Your task to perform on an android device: open app "TextNow: Call + Text Unlimited" (install if not already installed) and enter user name: "stoke@yahoo.com" and password: "prompted" Image 0: 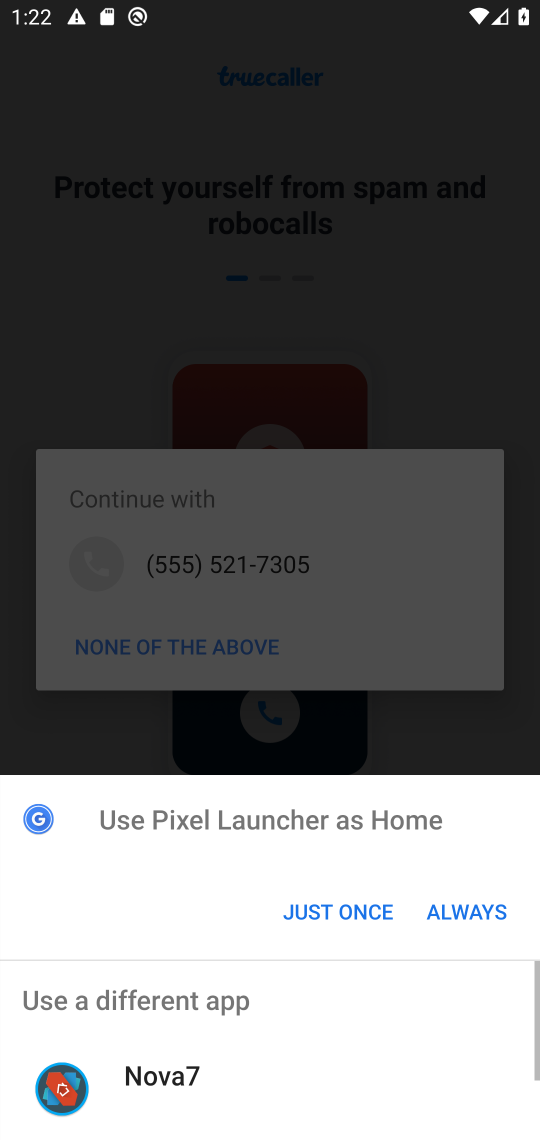
Step 0: press home button
Your task to perform on an android device: open app "TextNow: Call + Text Unlimited" (install if not already installed) and enter user name: "stoke@yahoo.com" and password: "prompted" Image 1: 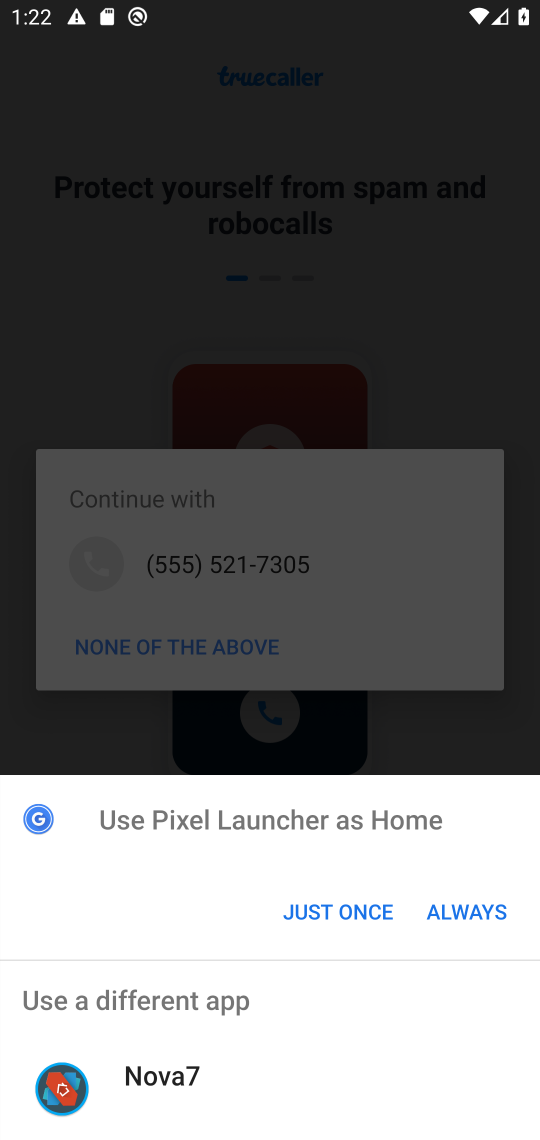
Step 1: click (358, 899)
Your task to perform on an android device: open app "TextNow: Call + Text Unlimited" (install if not already installed) and enter user name: "stoke@yahoo.com" and password: "prompted" Image 2: 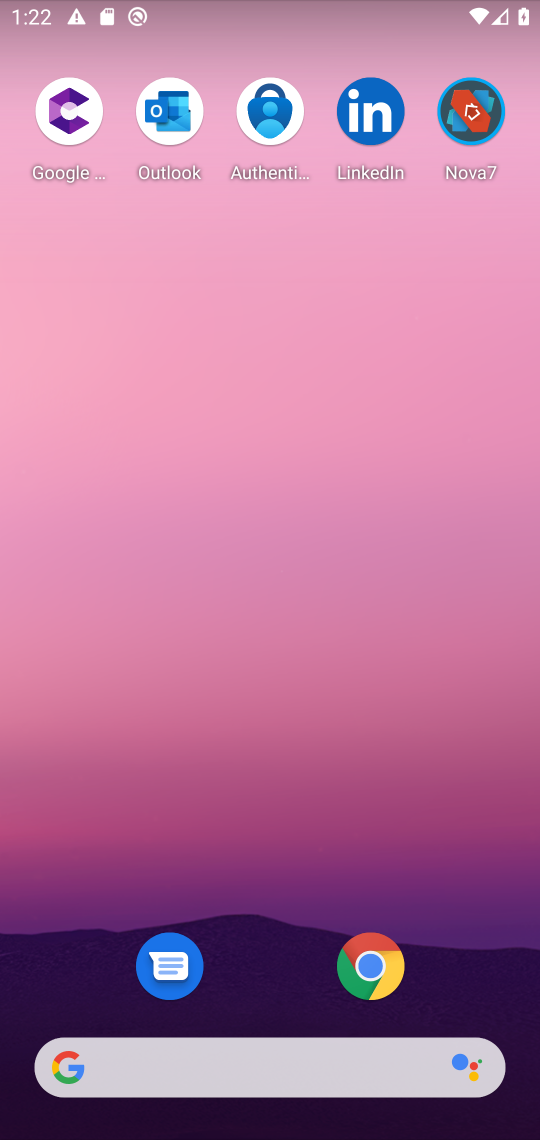
Step 2: press home button
Your task to perform on an android device: open app "TextNow: Call + Text Unlimited" (install if not already installed) and enter user name: "stoke@yahoo.com" and password: "prompted" Image 3: 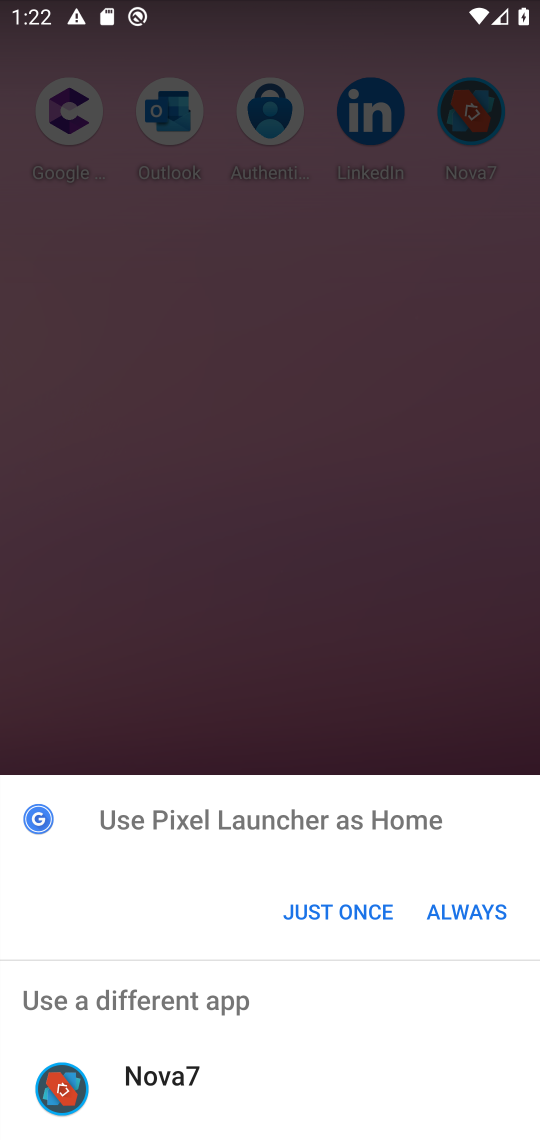
Step 3: click (347, 911)
Your task to perform on an android device: open app "TextNow: Call + Text Unlimited" (install if not already installed) and enter user name: "stoke@yahoo.com" and password: "prompted" Image 4: 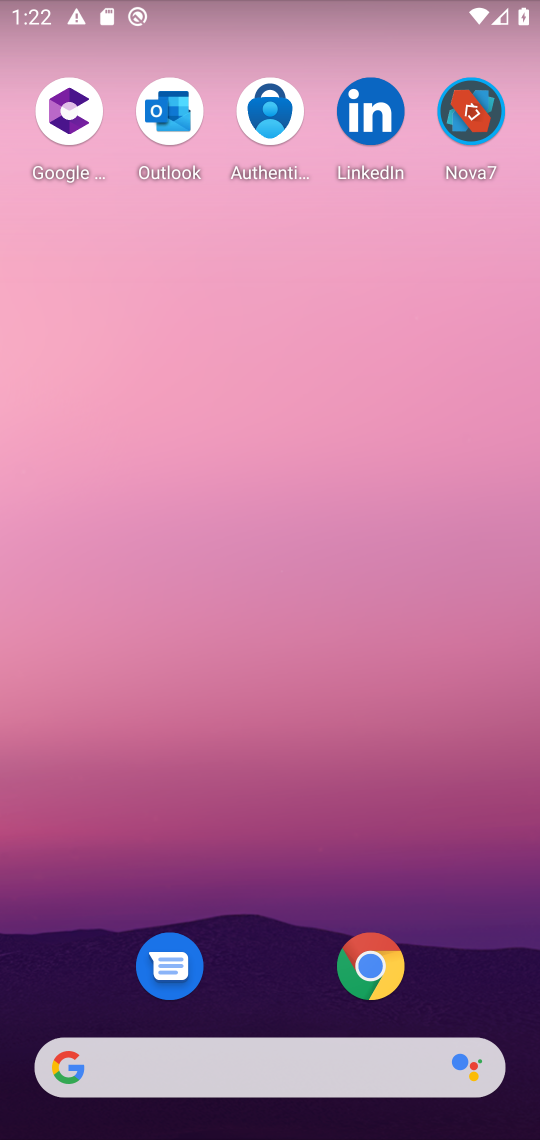
Step 4: drag from (287, 978) to (325, 144)
Your task to perform on an android device: open app "TextNow: Call + Text Unlimited" (install if not already installed) and enter user name: "stoke@yahoo.com" and password: "prompted" Image 5: 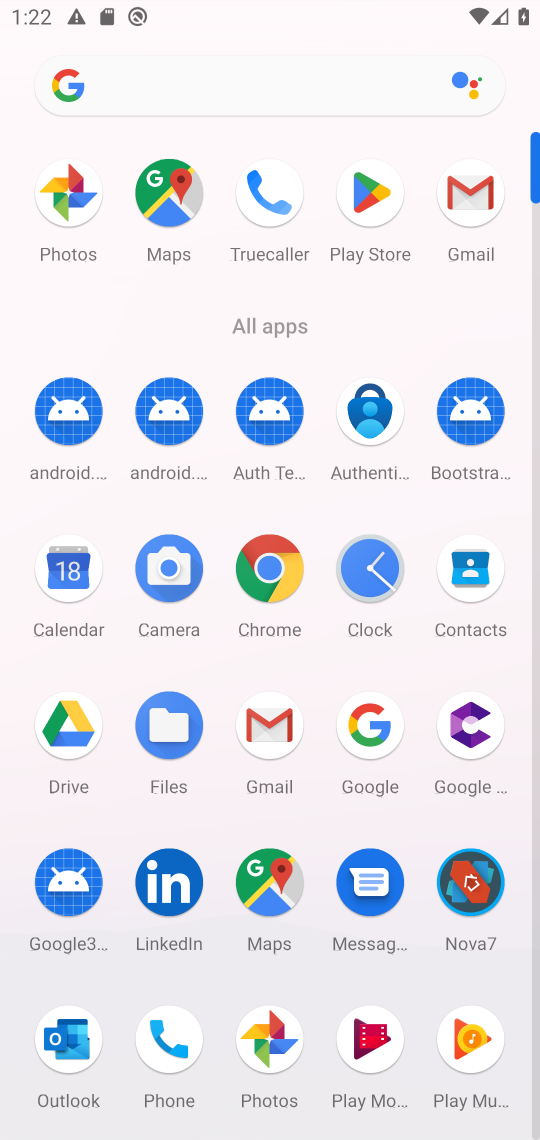
Step 5: click (358, 188)
Your task to perform on an android device: open app "TextNow: Call + Text Unlimited" (install if not already installed) and enter user name: "stoke@yahoo.com" and password: "prompted" Image 6: 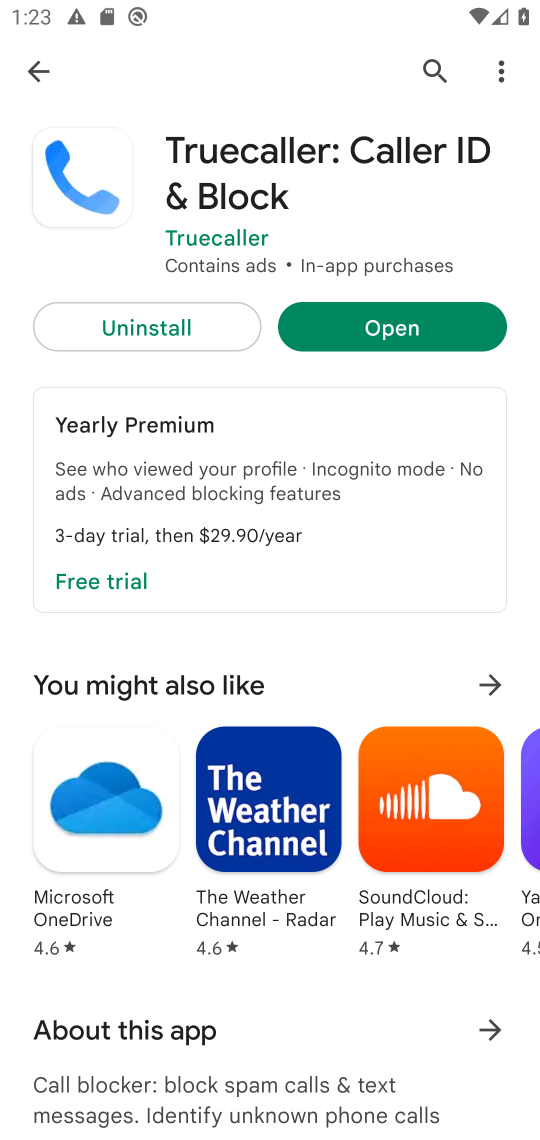
Step 6: click (428, 62)
Your task to perform on an android device: open app "TextNow: Call + Text Unlimited" (install if not already installed) and enter user name: "stoke@yahoo.com" and password: "prompted" Image 7: 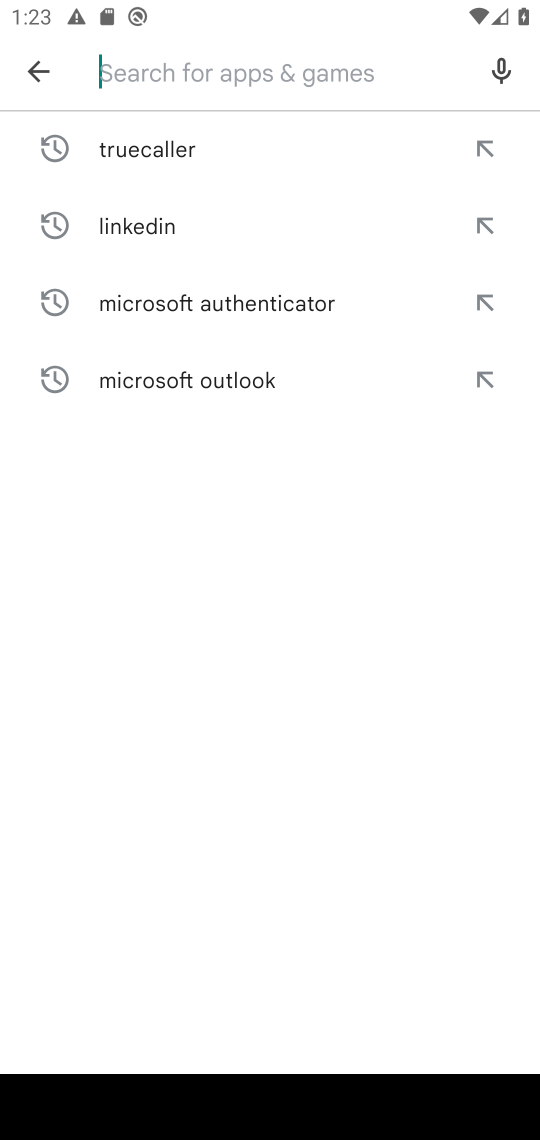
Step 7: type "TextNow: Call + Text Unlimited"
Your task to perform on an android device: open app "TextNow: Call + Text Unlimited" (install if not already installed) and enter user name: "stoke@yahoo.com" and password: "prompted" Image 8: 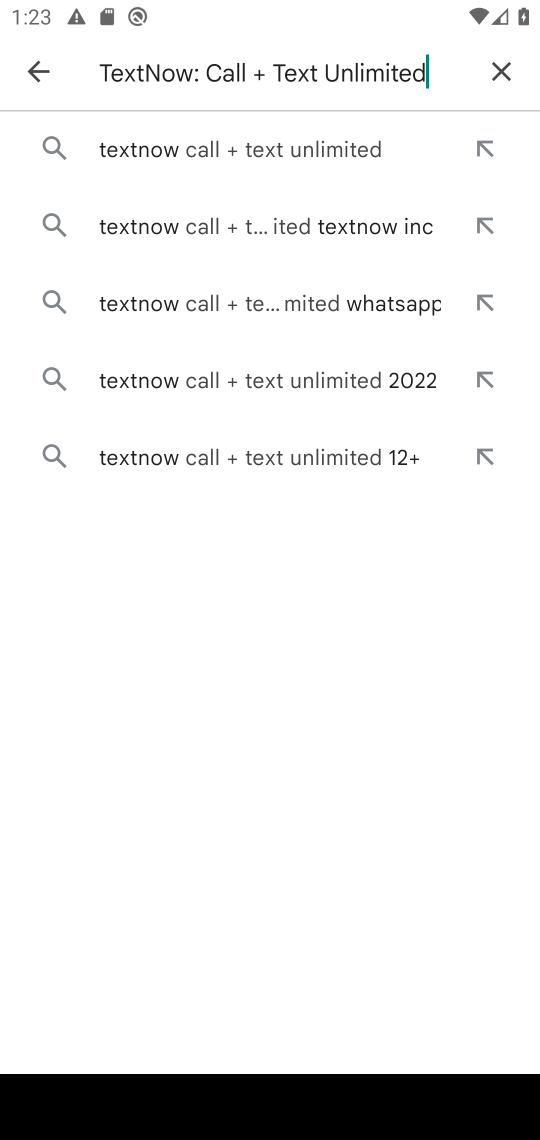
Step 8: click (224, 157)
Your task to perform on an android device: open app "TextNow: Call + Text Unlimited" (install if not already installed) and enter user name: "stoke@yahoo.com" and password: "prompted" Image 9: 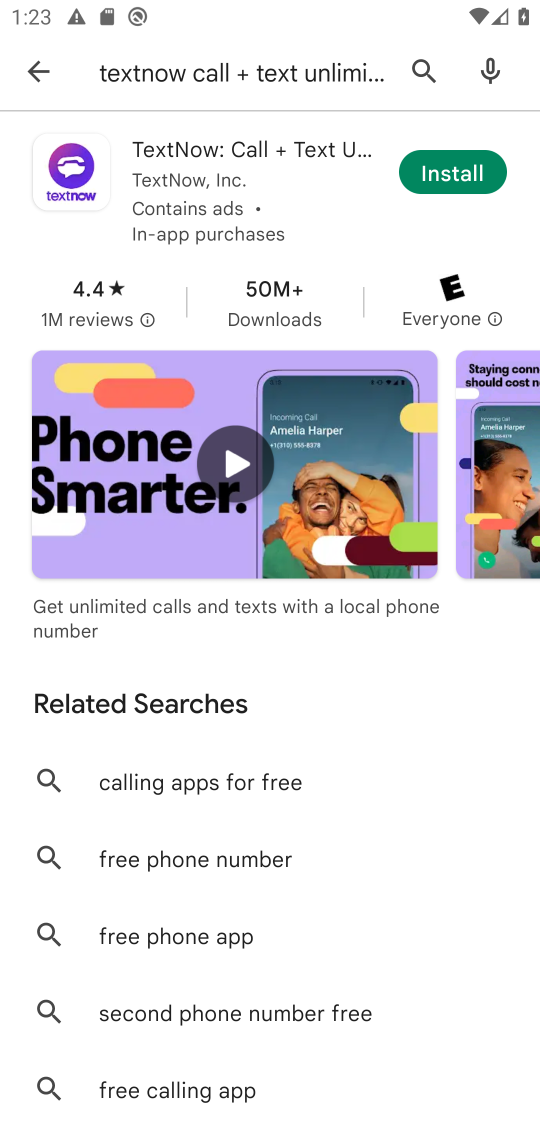
Step 9: click (470, 164)
Your task to perform on an android device: open app "TextNow: Call + Text Unlimited" (install if not already installed) and enter user name: "stoke@yahoo.com" and password: "prompted" Image 10: 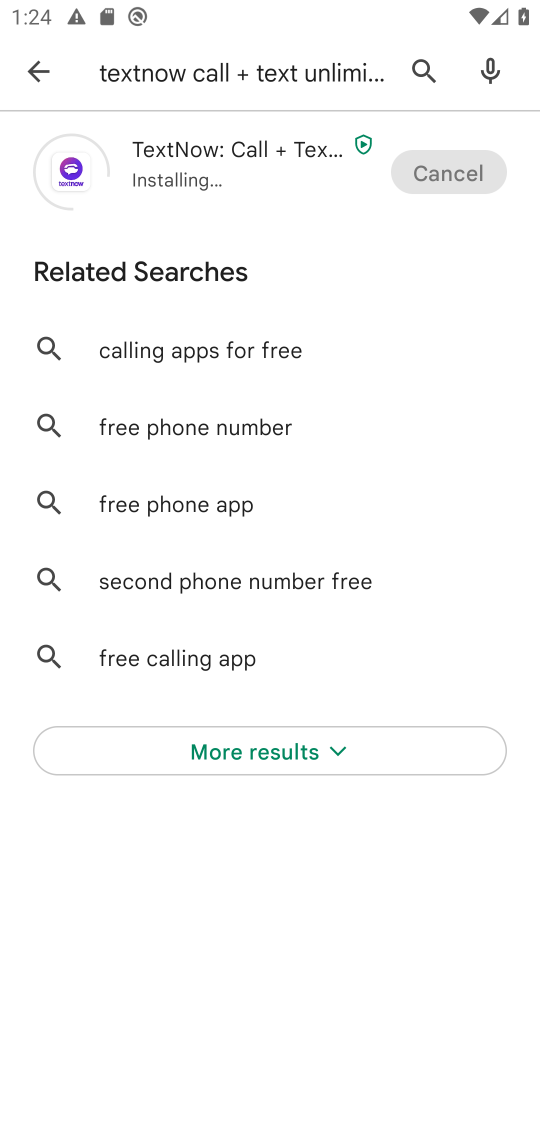
Step 10: click (274, 156)
Your task to perform on an android device: open app "TextNow: Call + Text Unlimited" (install if not already installed) and enter user name: "stoke@yahoo.com" and password: "prompted" Image 11: 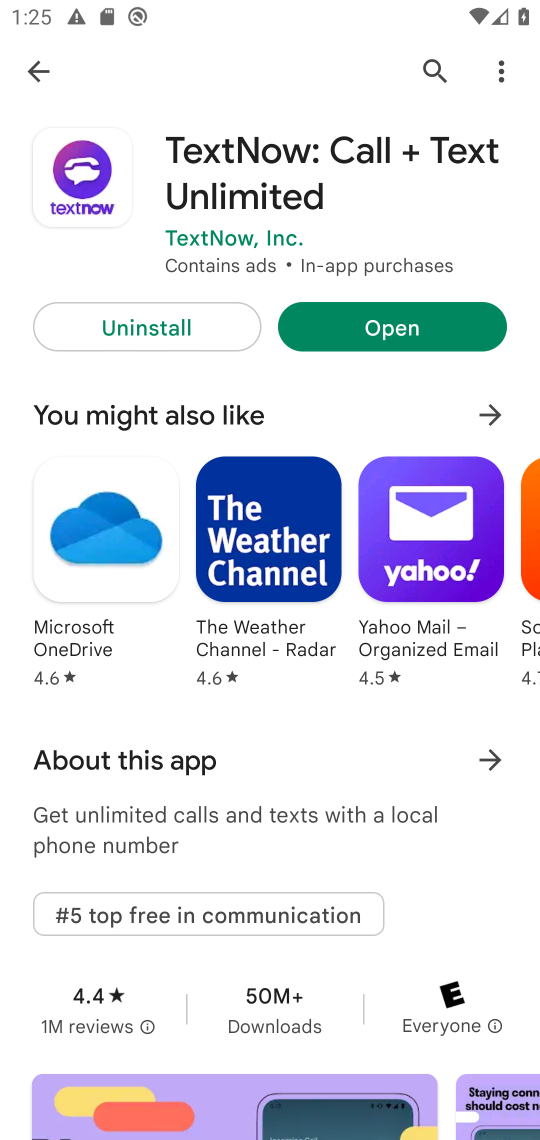
Step 11: click (384, 339)
Your task to perform on an android device: open app "TextNow: Call + Text Unlimited" (install if not already installed) and enter user name: "stoke@yahoo.com" and password: "prompted" Image 12: 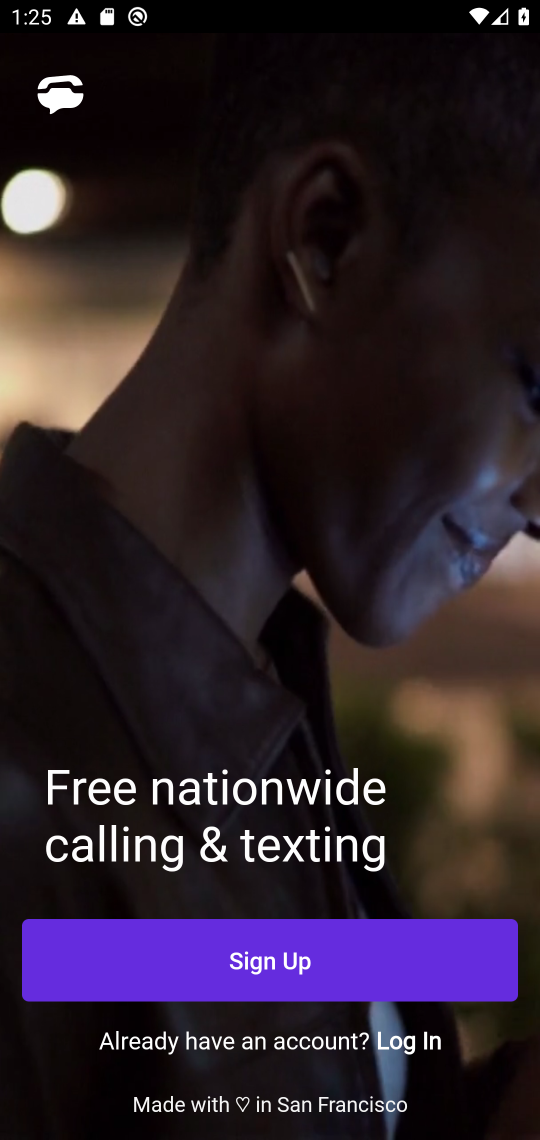
Step 12: click (292, 954)
Your task to perform on an android device: open app "TextNow: Call + Text Unlimited" (install if not already installed) and enter user name: "stoke@yahoo.com" and password: "prompted" Image 13: 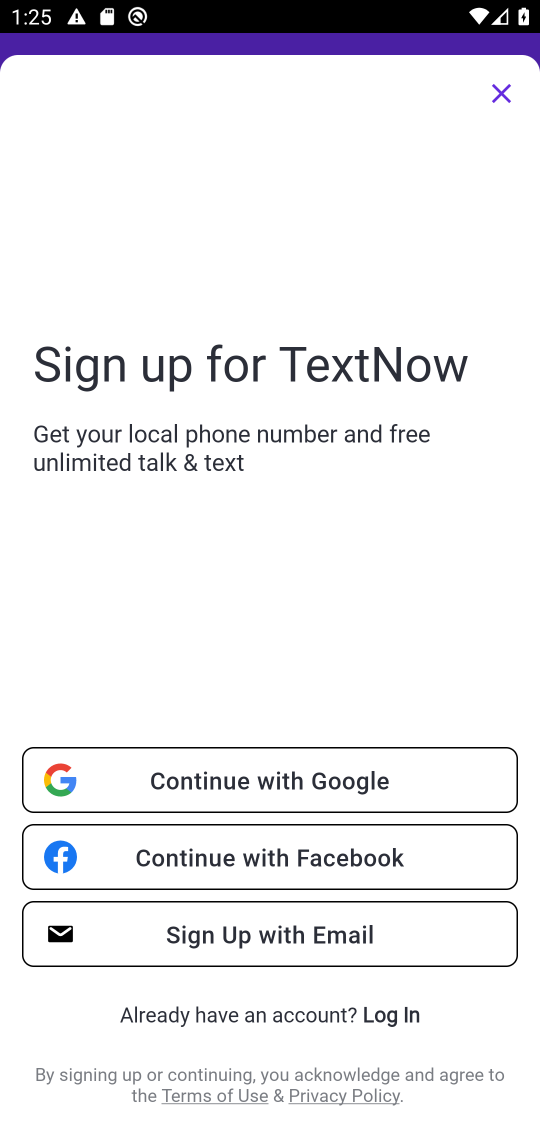
Step 13: click (276, 946)
Your task to perform on an android device: open app "TextNow: Call + Text Unlimited" (install if not already installed) and enter user name: "stoke@yahoo.com" and password: "prompted" Image 14: 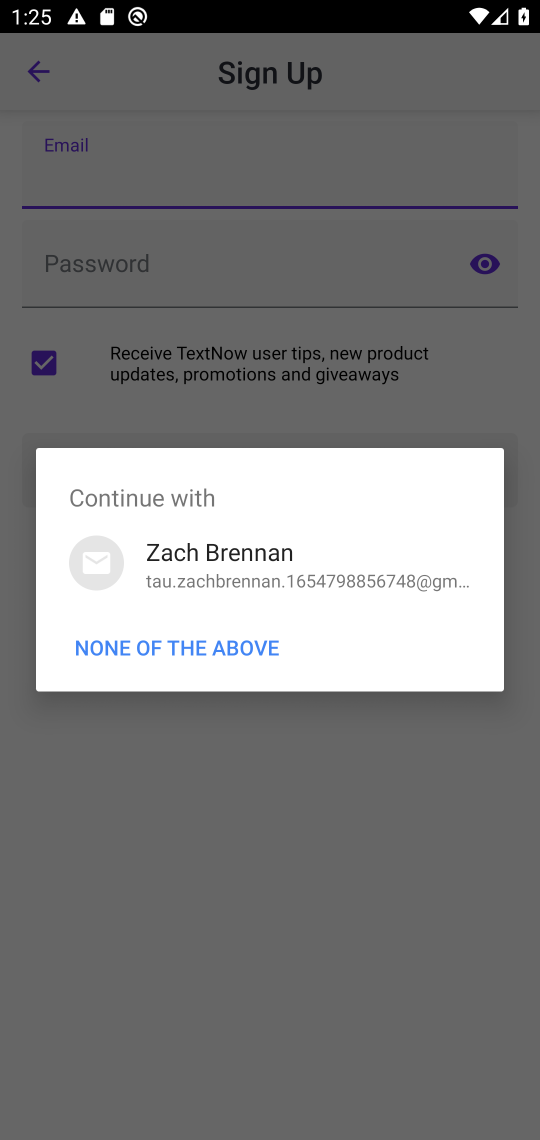
Step 14: click (160, 171)
Your task to perform on an android device: open app "TextNow: Call + Text Unlimited" (install if not already installed) and enter user name: "stoke@yahoo.com" and password: "prompted" Image 15: 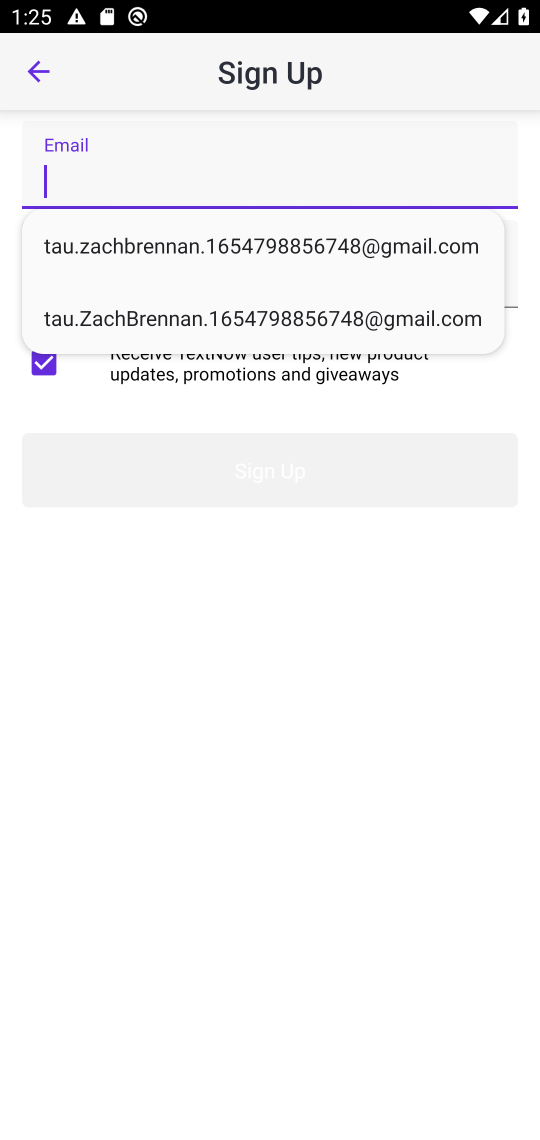
Step 15: type "stoke@yahoo.com"
Your task to perform on an android device: open app "TextNow: Call + Text Unlimited" (install if not already installed) and enter user name: "stoke@yahoo.com" and password: "prompted" Image 16: 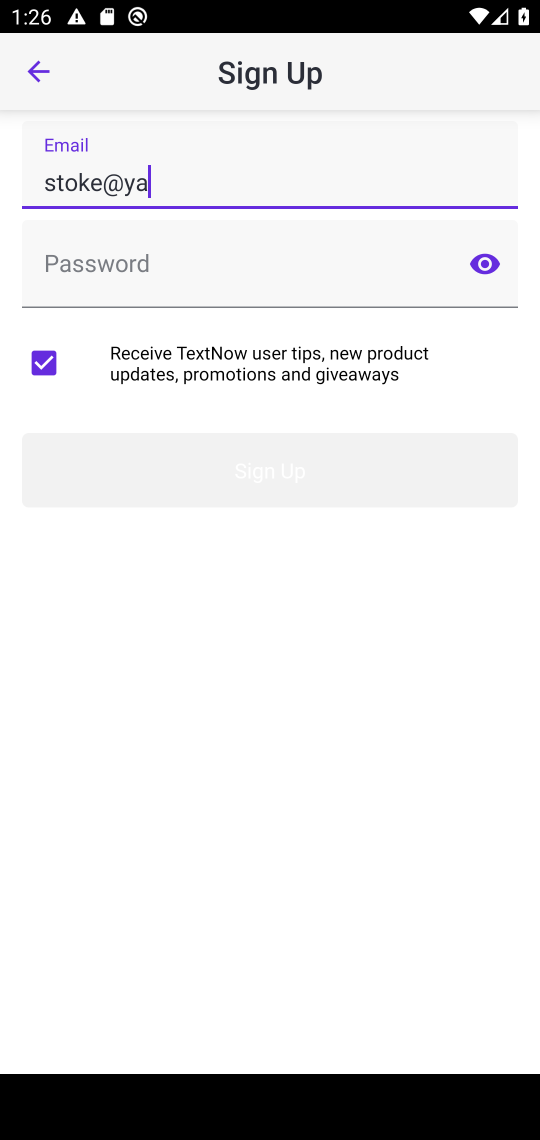
Step 16: click (117, 272)
Your task to perform on an android device: open app "TextNow: Call + Text Unlimited" (install if not already installed) and enter user name: "stoke@yahoo.com" and password: "prompted" Image 17: 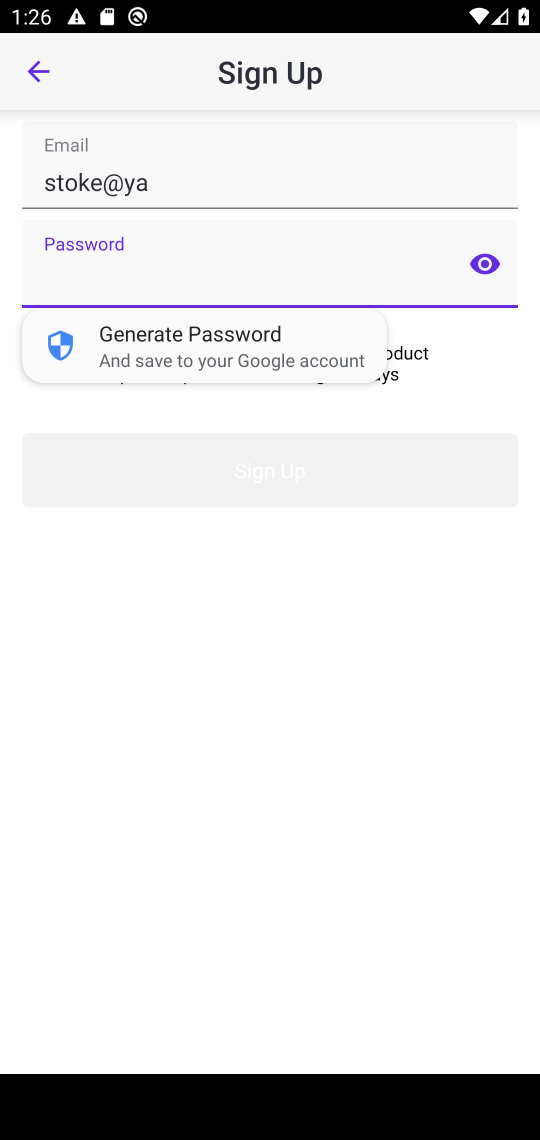
Step 17: click (122, 277)
Your task to perform on an android device: open app "TextNow: Call + Text Unlimited" (install if not already installed) and enter user name: "stoke@yahoo.com" and password: "prompted" Image 18: 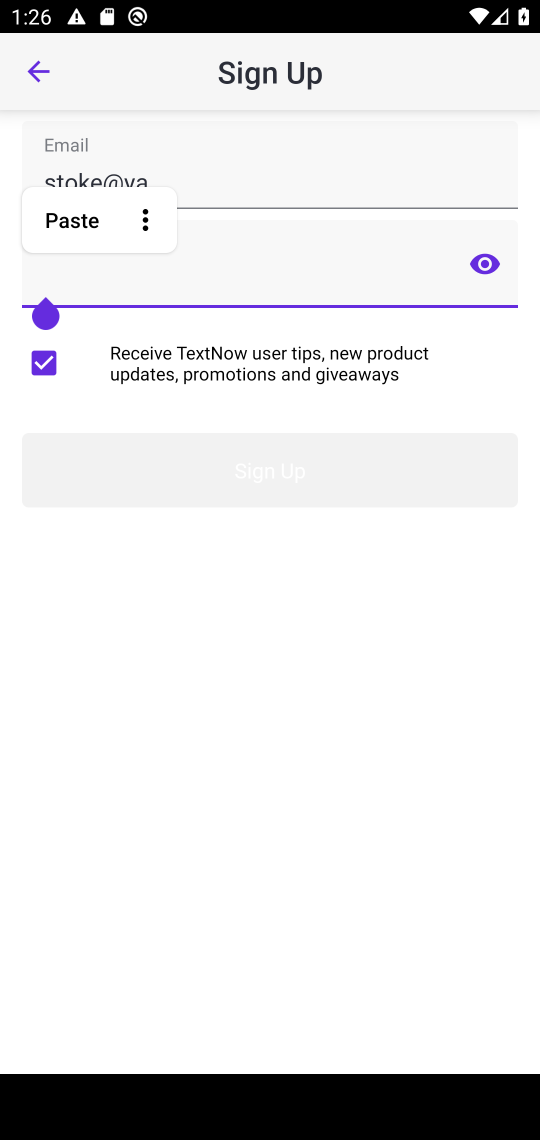
Step 18: type "prompted"
Your task to perform on an android device: open app "TextNow: Call + Text Unlimited" (install if not already installed) and enter user name: "stoke@yahoo.com" and password: "prompted" Image 19: 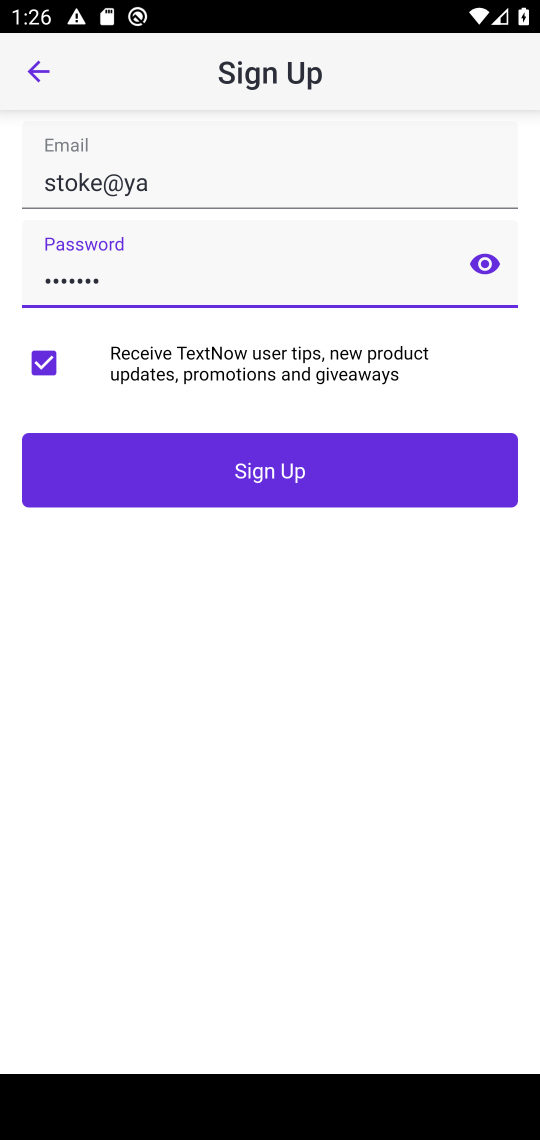
Step 19: click (247, 462)
Your task to perform on an android device: open app "TextNow: Call + Text Unlimited" (install if not already installed) and enter user name: "stoke@yahoo.com" and password: "prompted" Image 20: 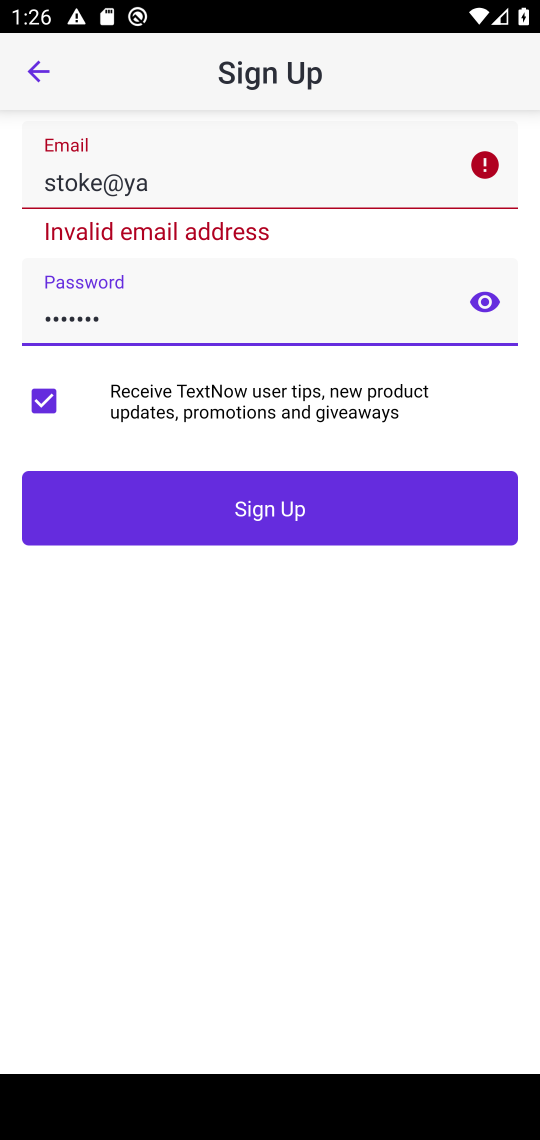
Step 20: click (190, 169)
Your task to perform on an android device: open app "TextNow: Call + Text Unlimited" (install if not already installed) and enter user name: "stoke@yahoo.com" and password: "prompted" Image 21: 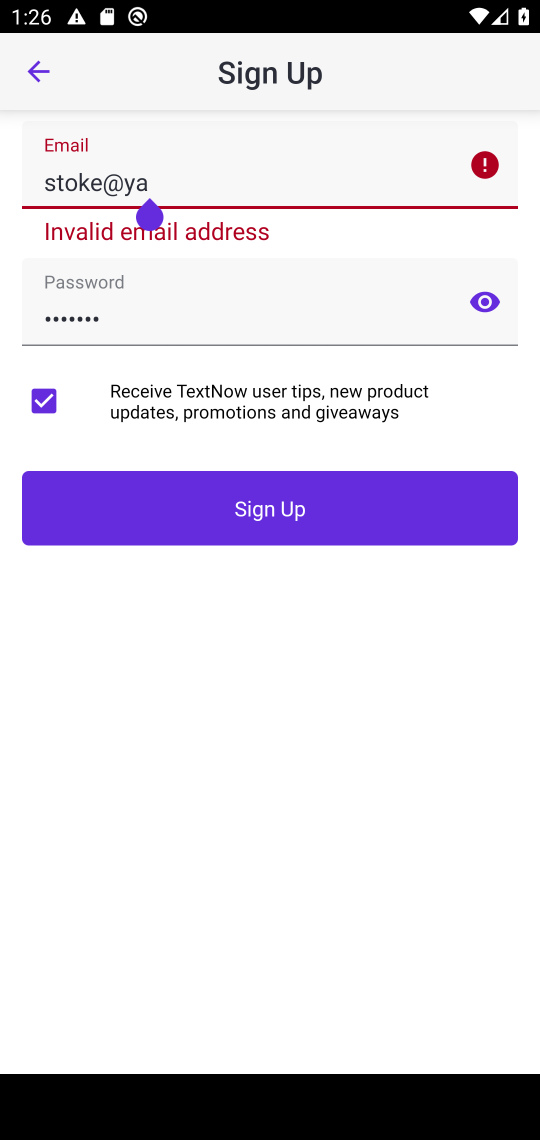
Step 21: drag from (146, 211) to (28, 216)
Your task to perform on an android device: open app "TextNow: Call + Text Unlimited" (install if not already installed) and enter user name: "stoke@yahoo.com" and password: "prompted" Image 22: 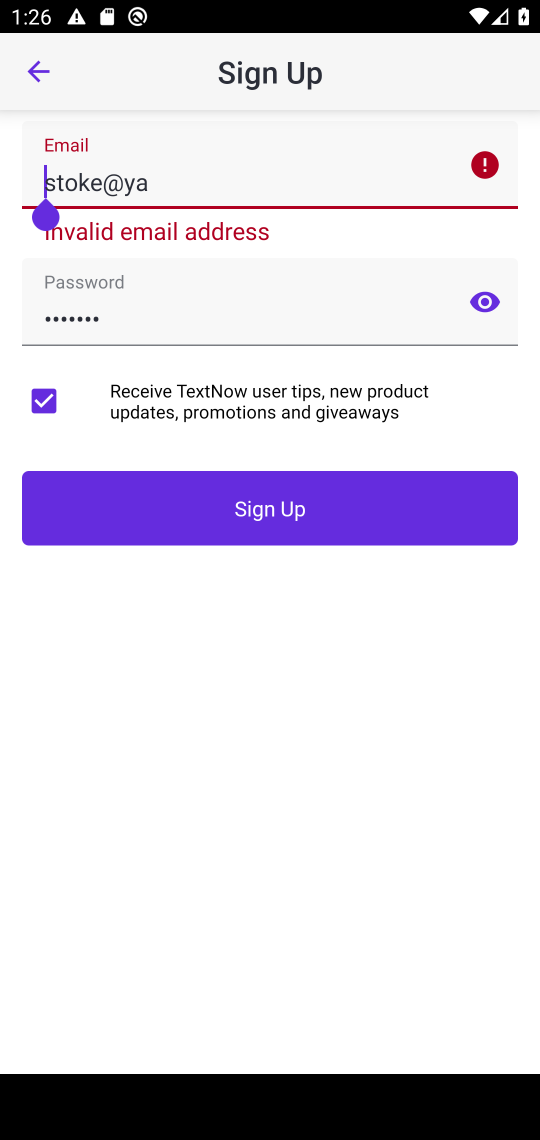
Step 22: click (81, 187)
Your task to perform on an android device: open app "TextNow: Call + Text Unlimited" (install if not already installed) and enter user name: "stoke@yahoo.com" and password: "prompted" Image 23: 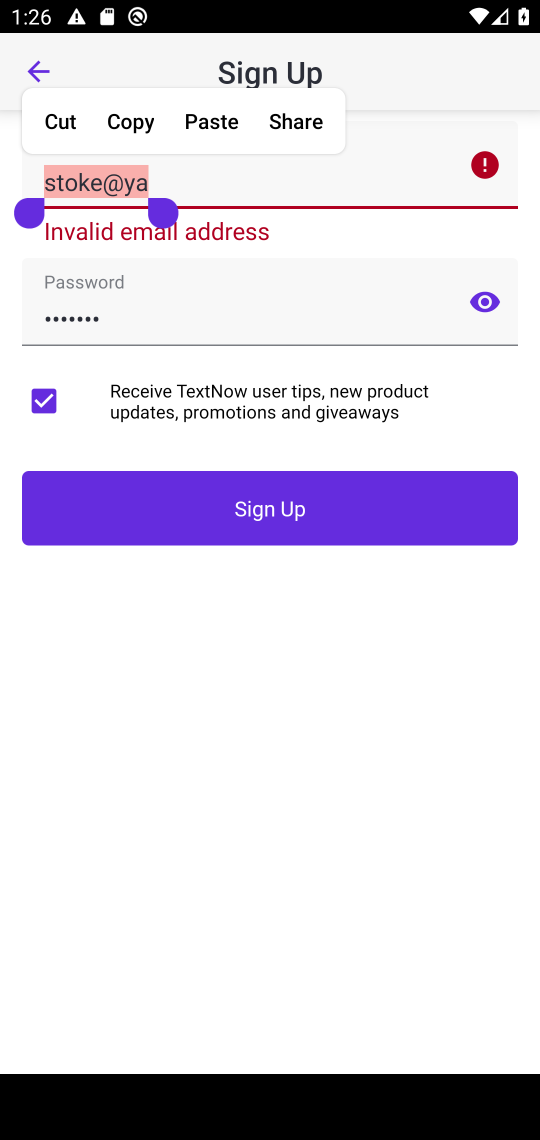
Step 23: click (58, 116)
Your task to perform on an android device: open app "TextNow: Call + Text Unlimited" (install if not already installed) and enter user name: "stoke@yahoo.com" and password: "prompted" Image 24: 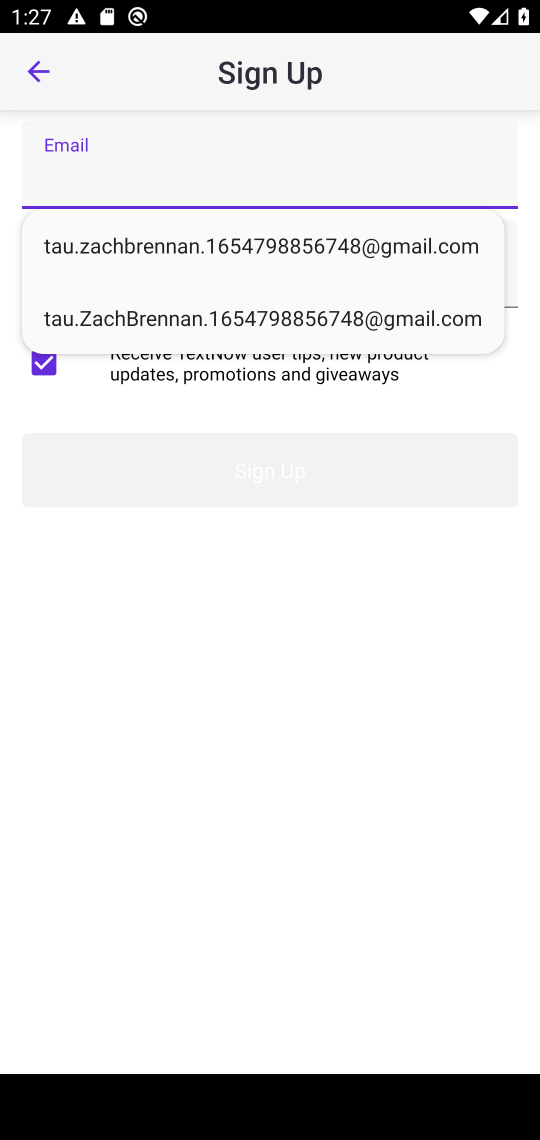
Step 24: type "stoke@yahoo.com"
Your task to perform on an android device: open app "TextNow: Call + Text Unlimited" (install if not already installed) and enter user name: "stoke@yahoo.com" and password: "prompted" Image 25: 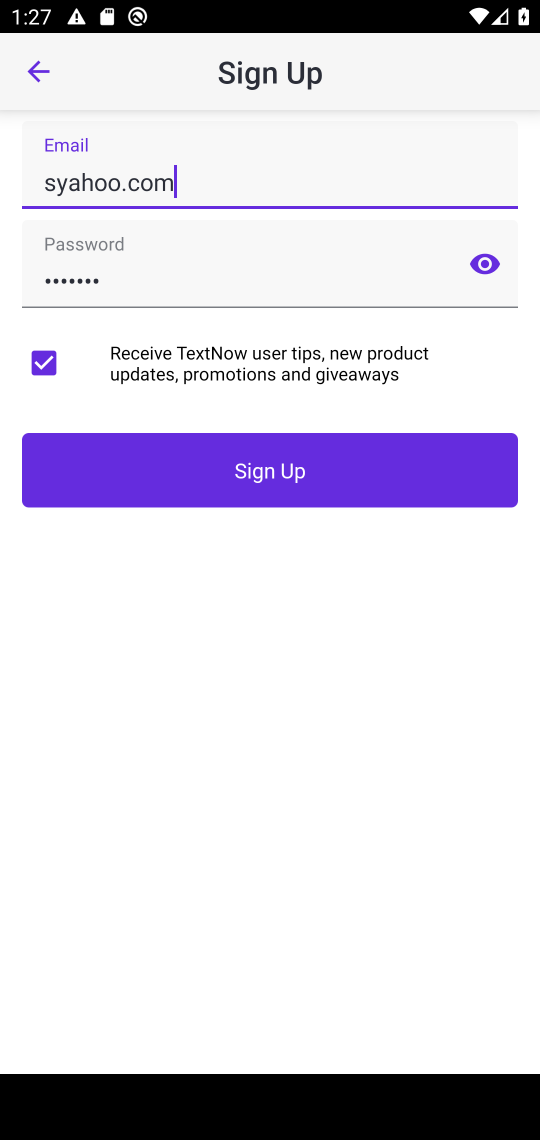
Step 25: click (56, 176)
Your task to perform on an android device: open app "TextNow: Call + Text Unlimited" (install if not already installed) and enter user name: "stoke@yahoo.com" and password: "prompted" Image 26: 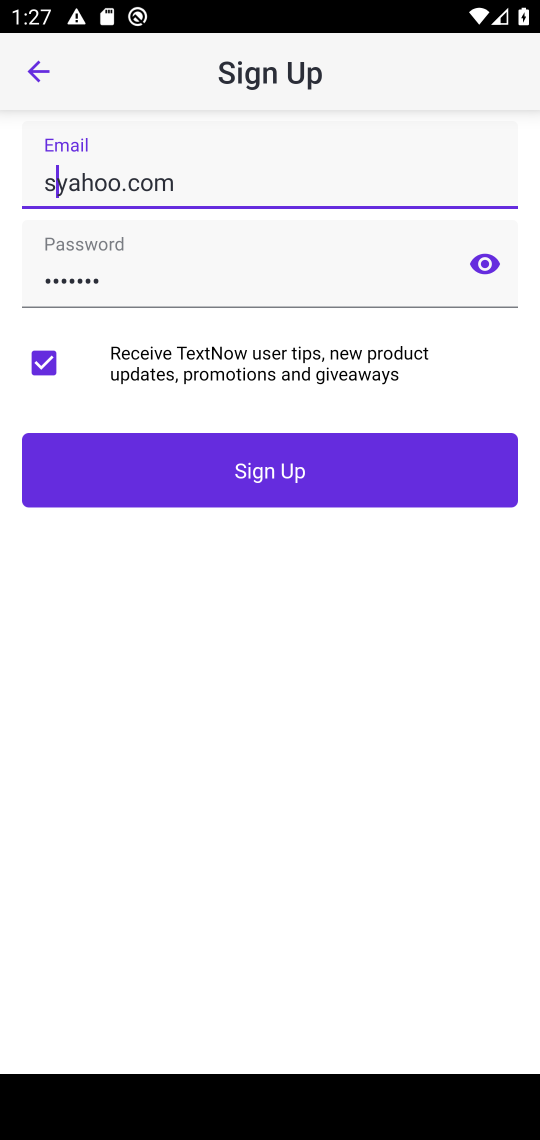
Step 26: type "toke@"
Your task to perform on an android device: open app "TextNow: Call + Text Unlimited" (install if not already installed) and enter user name: "stoke@yahoo.com" and password: "prompted" Image 27: 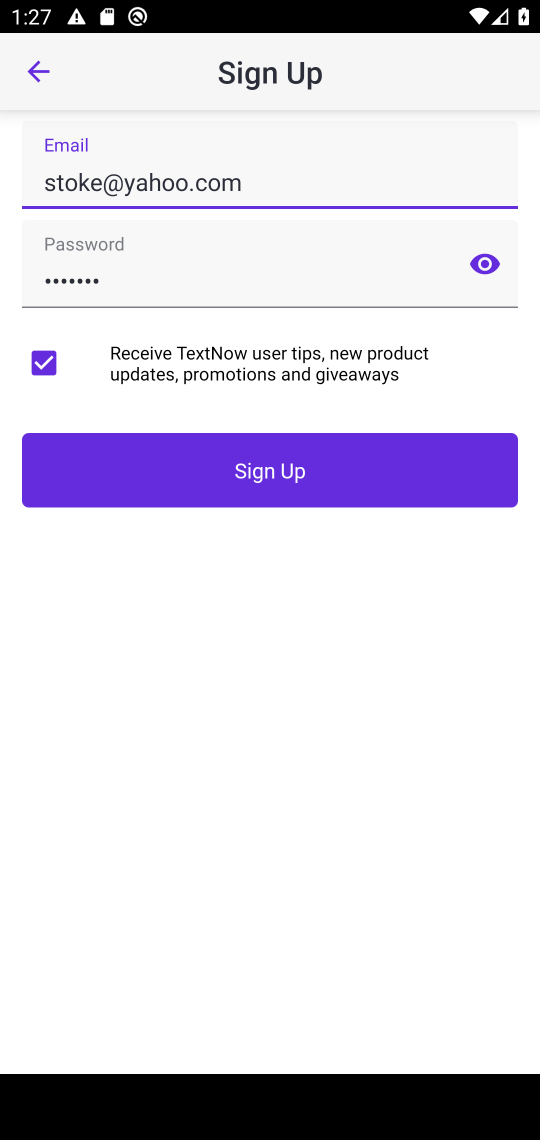
Step 27: click (291, 481)
Your task to perform on an android device: open app "TextNow: Call + Text Unlimited" (install if not already installed) and enter user name: "stoke@yahoo.com" and password: "prompted" Image 28: 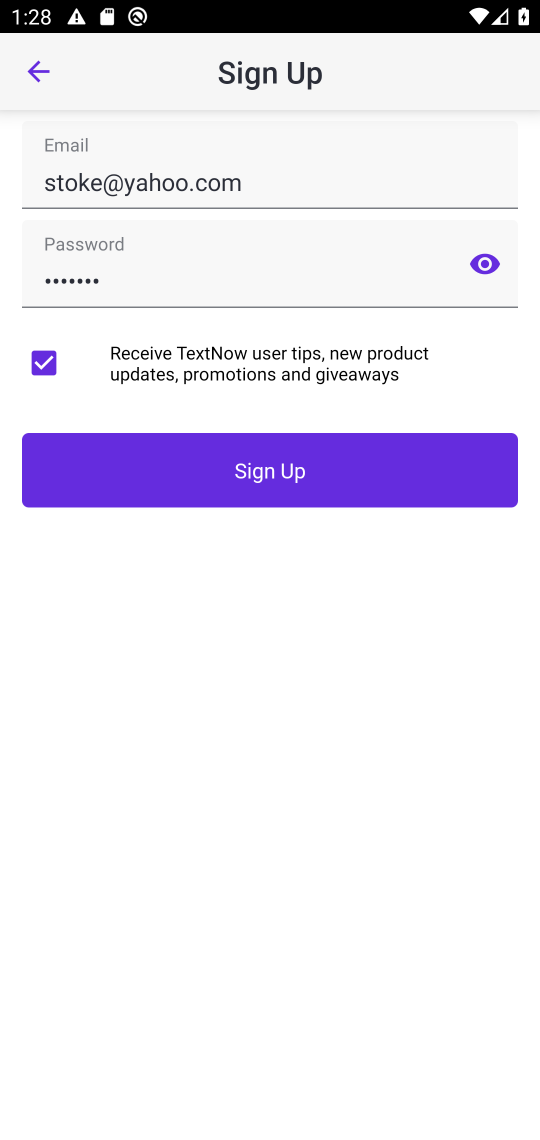
Step 28: task complete